Your task to perform on an android device: Open Youtube and go to "Your channel" Image 0: 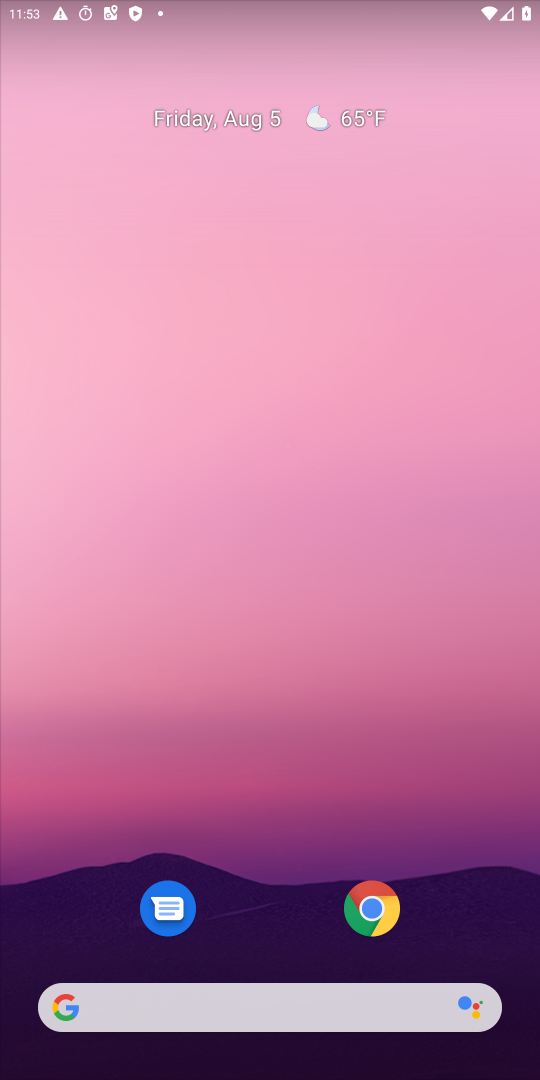
Step 0: drag from (68, 972) to (188, 734)
Your task to perform on an android device: Open Youtube and go to "Your channel" Image 1: 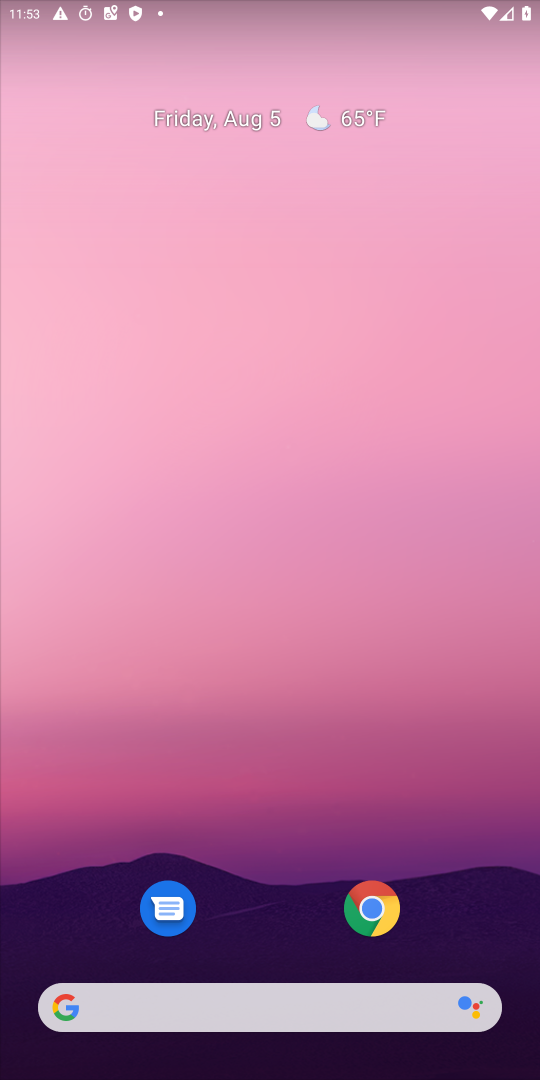
Step 1: click (33, 1033)
Your task to perform on an android device: Open Youtube and go to "Your channel" Image 2: 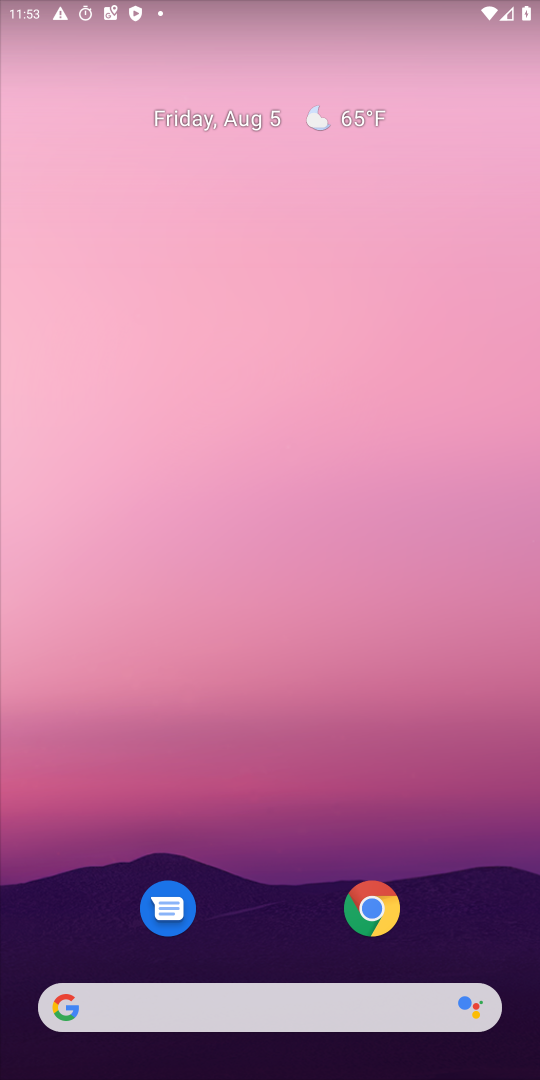
Step 2: drag from (33, 1033) to (260, 513)
Your task to perform on an android device: Open Youtube and go to "Your channel" Image 3: 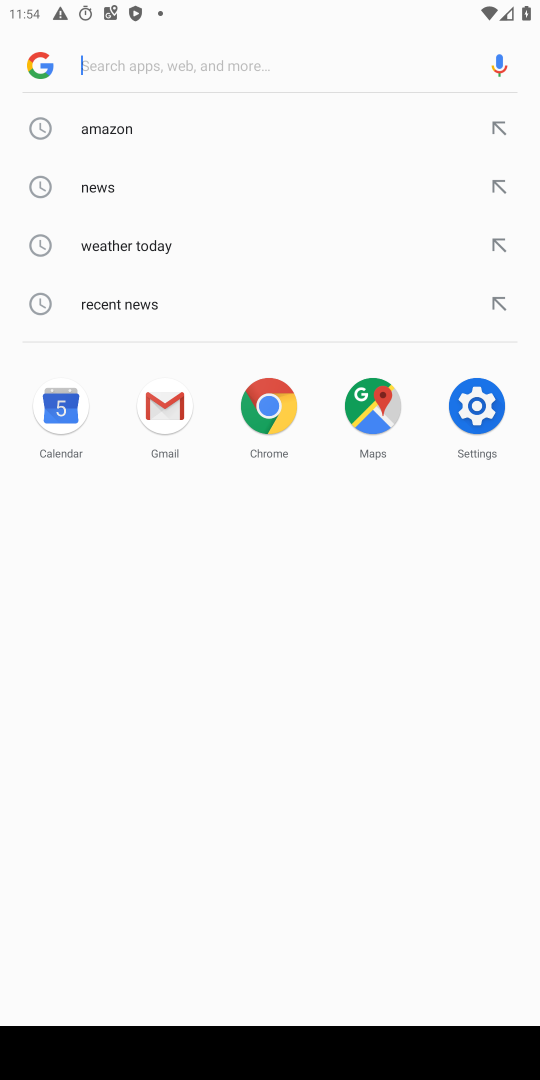
Step 3: press home button
Your task to perform on an android device: Open Youtube and go to "Your channel" Image 4: 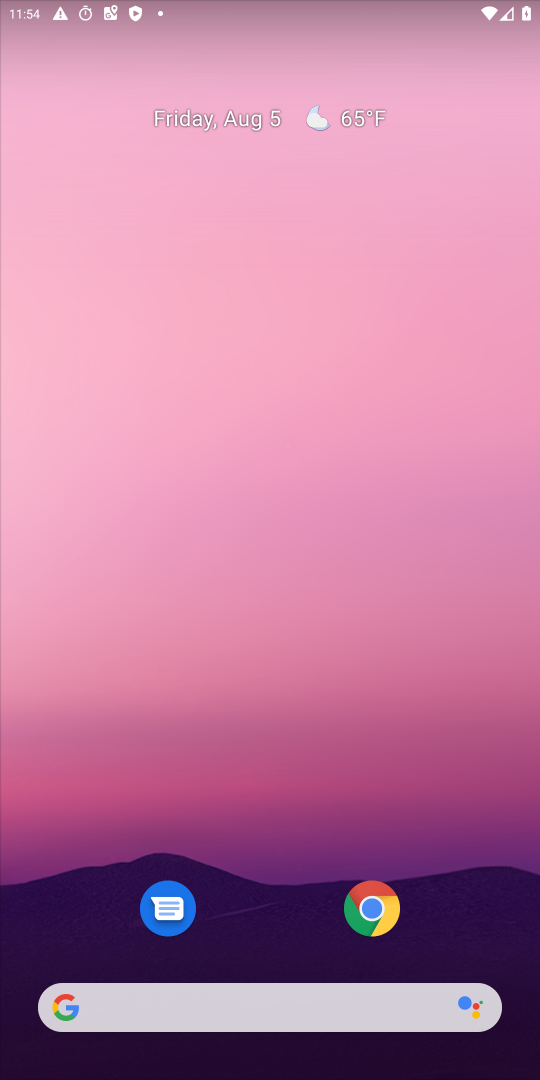
Step 4: click (196, 792)
Your task to perform on an android device: Open Youtube and go to "Your channel" Image 5: 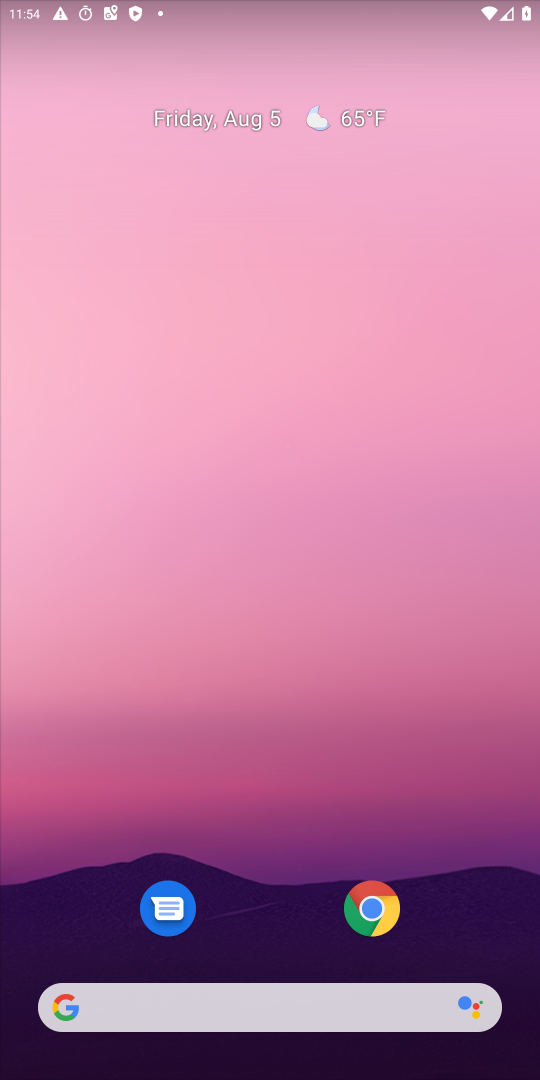
Step 5: drag from (196, 792) to (263, 351)
Your task to perform on an android device: Open Youtube and go to "Your channel" Image 6: 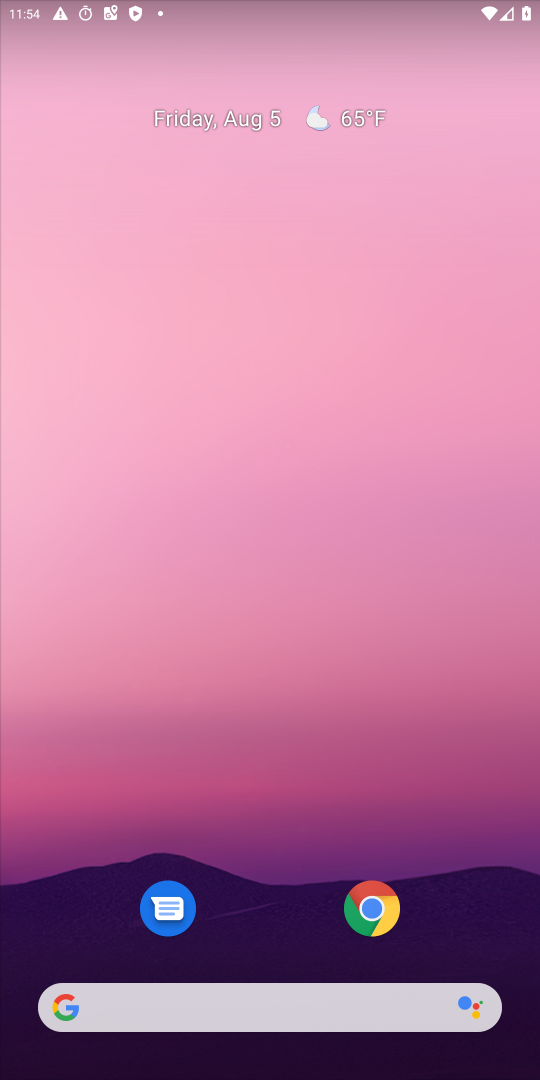
Step 6: click (36, 896)
Your task to perform on an android device: Open Youtube and go to "Your channel" Image 7: 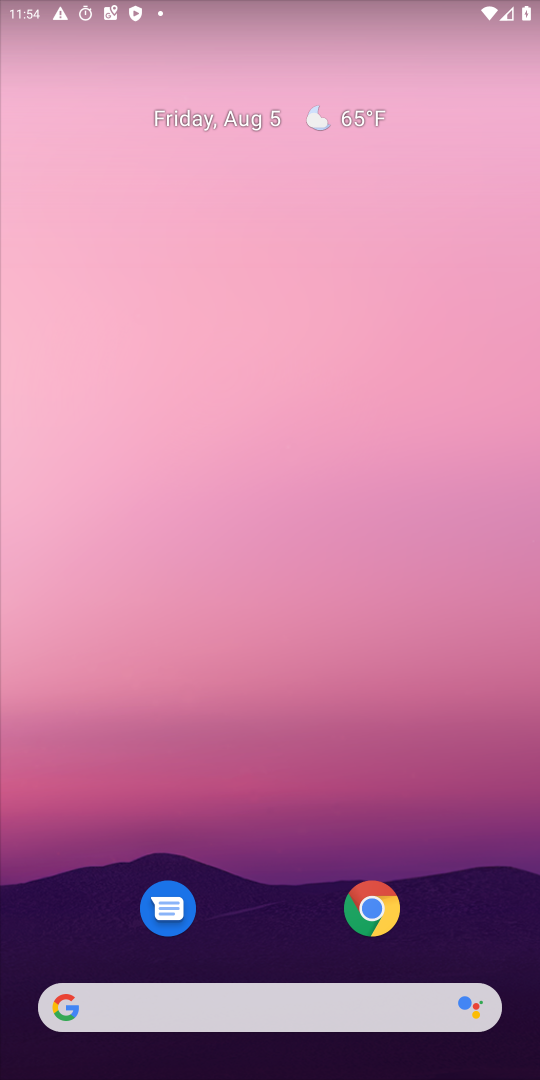
Step 7: drag from (45, 886) to (261, 453)
Your task to perform on an android device: Open Youtube and go to "Your channel" Image 8: 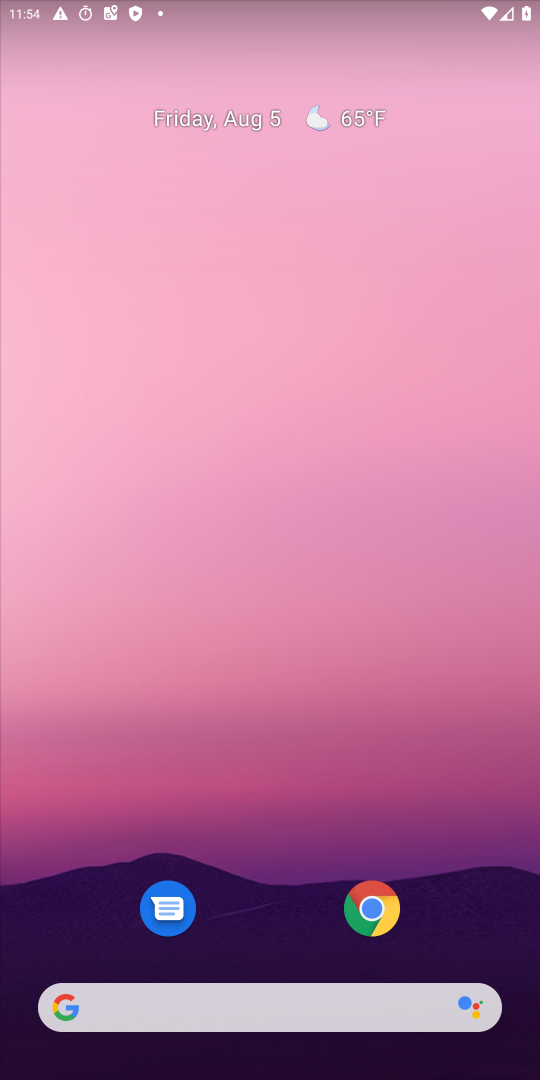
Step 8: click (53, 1066)
Your task to perform on an android device: Open Youtube and go to "Your channel" Image 9: 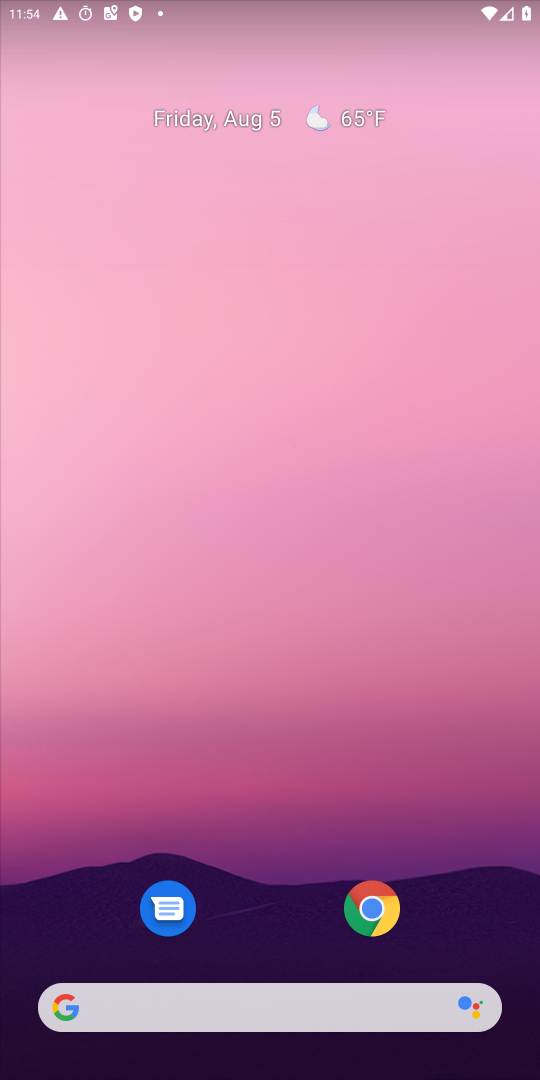
Step 9: drag from (53, 1066) to (152, 344)
Your task to perform on an android device: Open Youtube and go to "Your channel" Image 10: 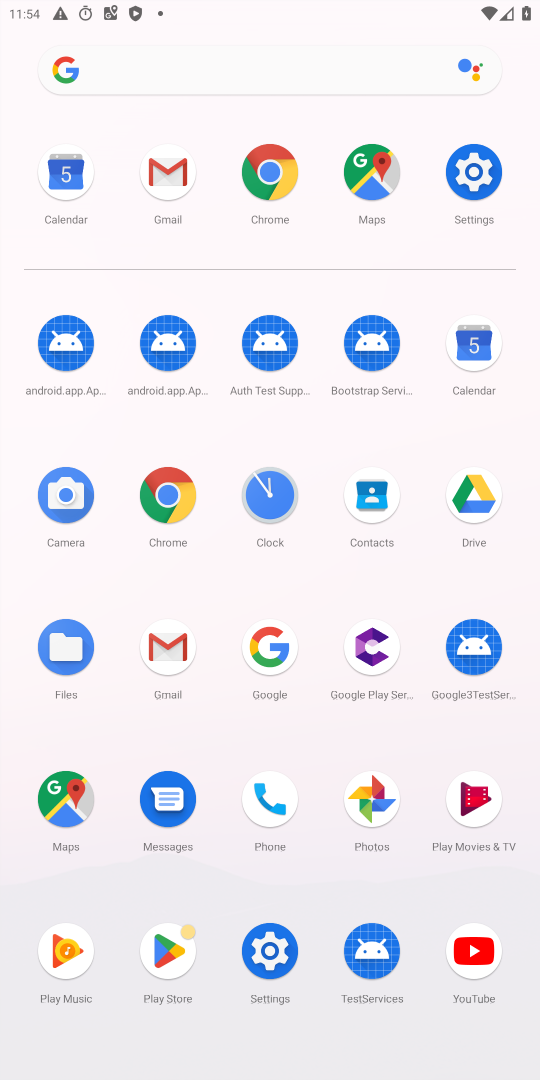
Step 10: click (459, 948)
Your task to perform on an android device: Open Youtube and go to "Your channel" Image 11: 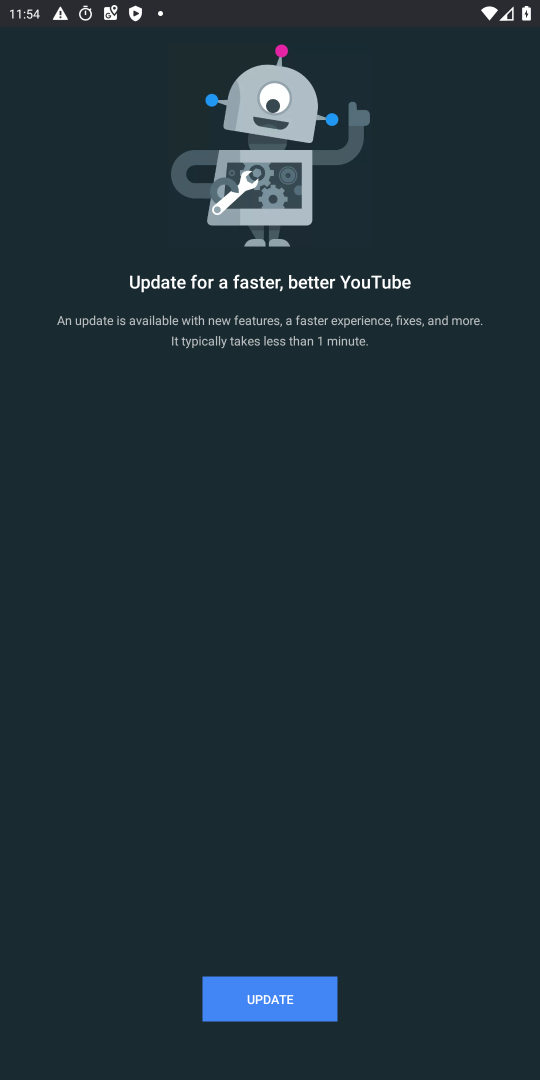
Step 11: click (279, 1016)
Your task to perform on an android device: Open Youtube and go to "Your channel" Image 12: 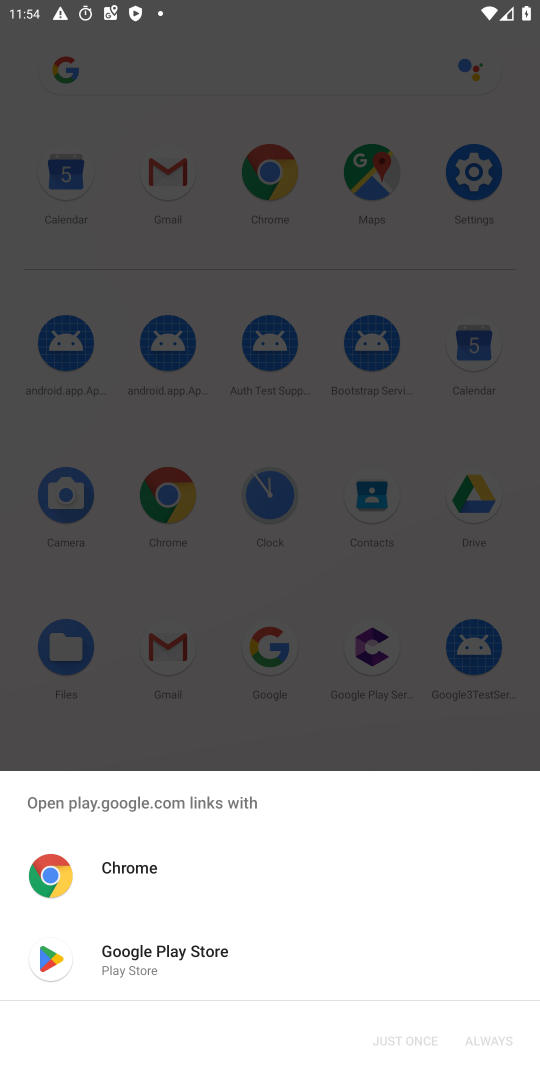
Step 12: click (209, 972)
Your task to perform on an android device: Open Youtube and go to "Your channel" Image 13: 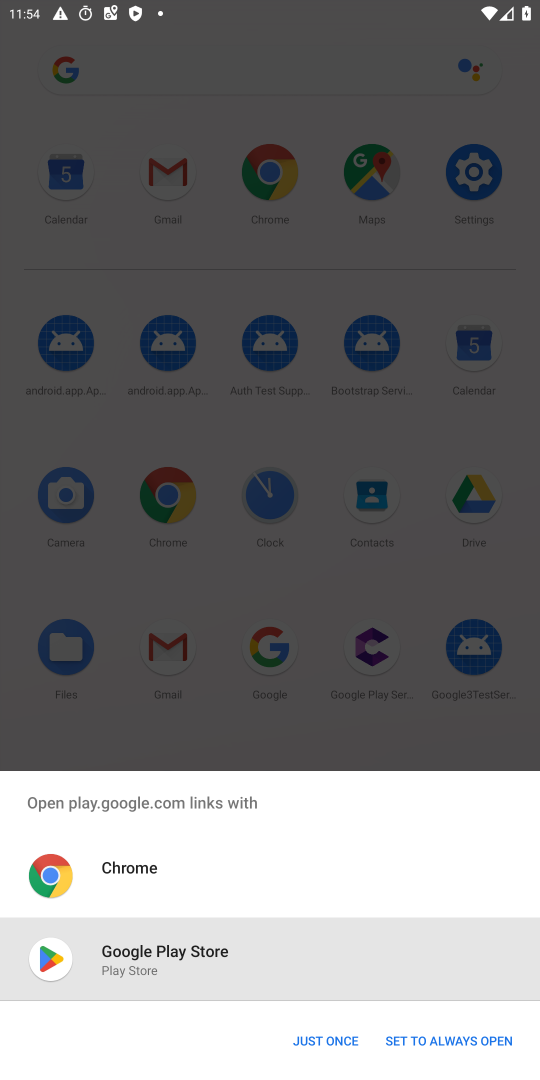
Step 13: click (334, 1044)
Your task to perform on an android device: Open Youtube and go to "Your channel" Image 14: 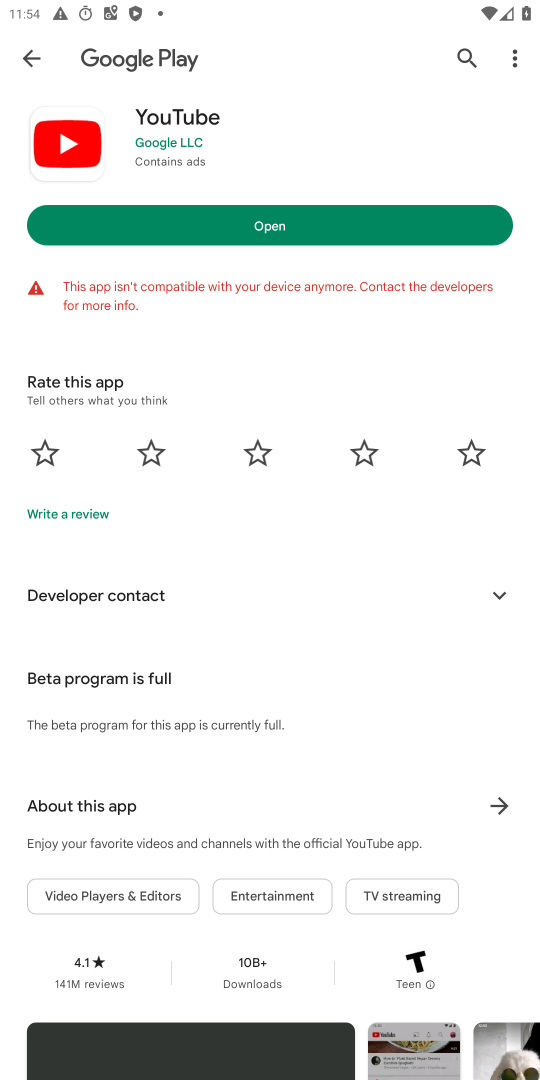
Step 14: click (278, 234)
Your task to perform on an android device: Open Youtube and go to "Your channel" Image 15: 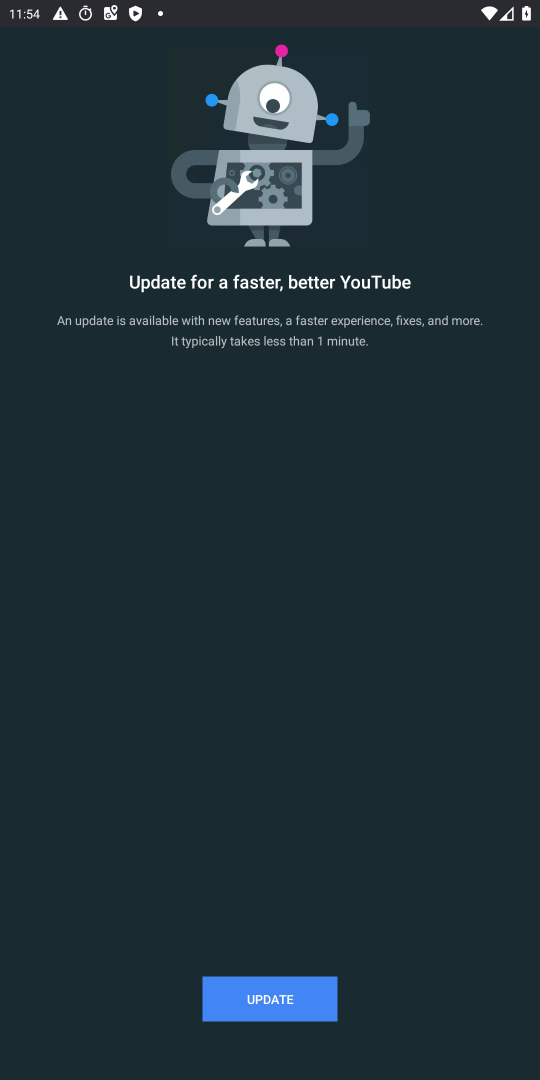
Step 15: task complete